Your task to perform on an android device: Go to location settings Image 0: 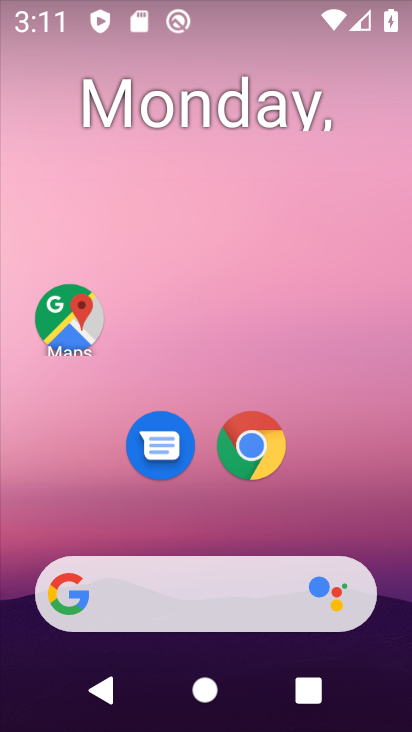
Step 0: drag from (202, 455) to (208, 54)
Your task to perform on an android device: Go to location settings Image 1: 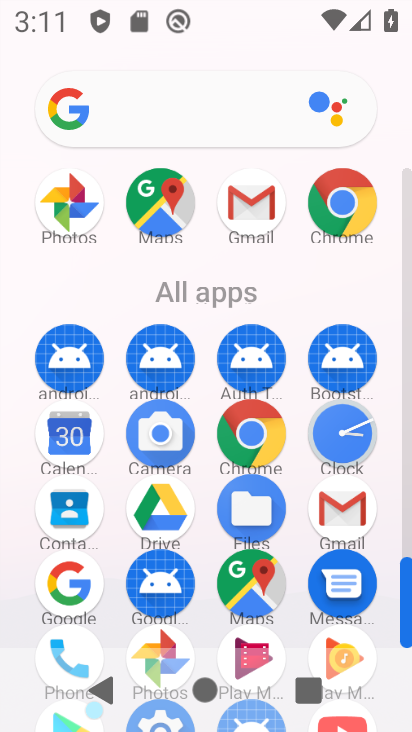
Step 1: drag from (196, 548) to (202, 225)
Your task to perform on an android device: Go to location settings Image 2: 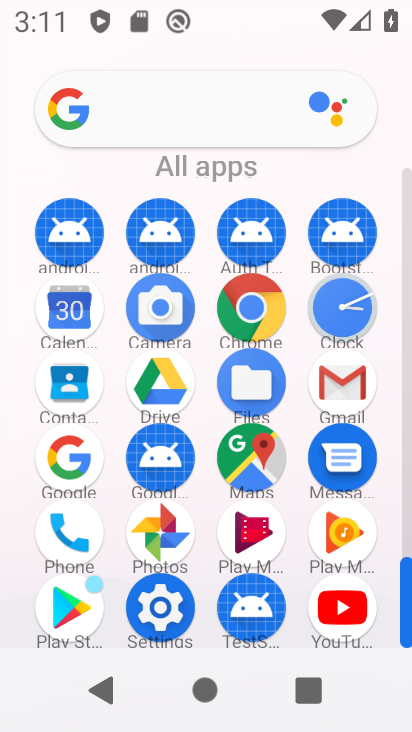
Step 2: click (167, 625)
Your task to perform on an android device: Go to location settings Image 3: 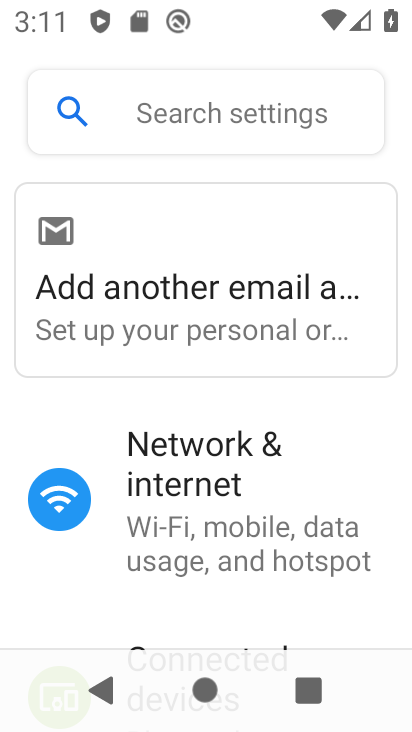
Step 3: drag from (203, 506) to (232, 329)
Your task to perform on an android device: Go to location settings Image 4: 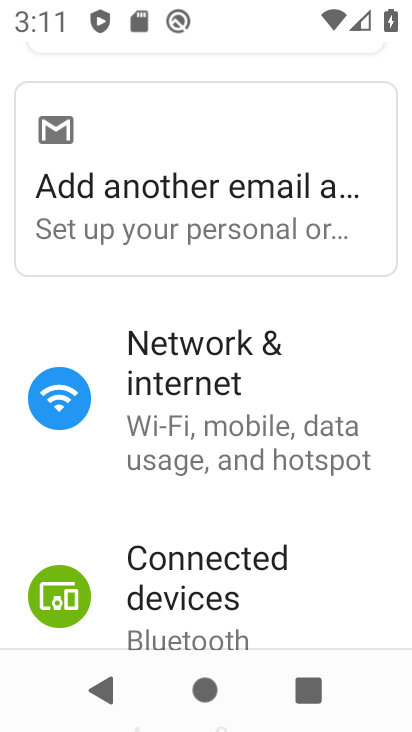
Step 4: drag from (191, 610) to (209, 231)
Your task to perform on an android device: Go to location settings Image 5: 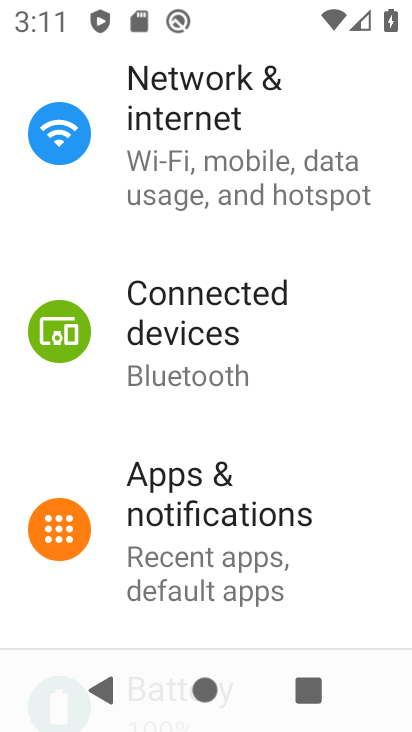
Step 5: drag from (171, 567) to (206, 254)
Your task to perform on an android device: Go to location settings Image 6: 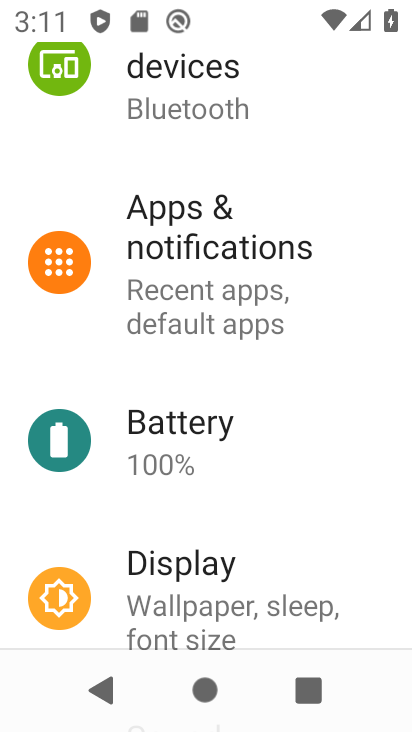
Step 6: drag from (179, 563) to (273, 86)
Your task to perform on an android device: Go to location settings Image 7: 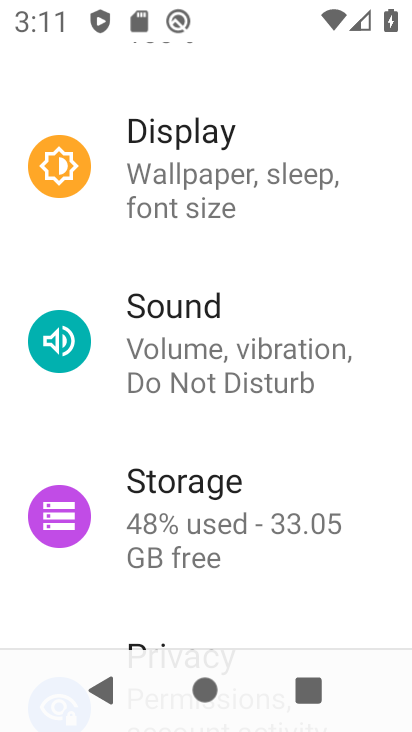
Step 7: drag from (172, 598) to (220, 315)
Your task to perform on an android device: Go to location settings Image 8: 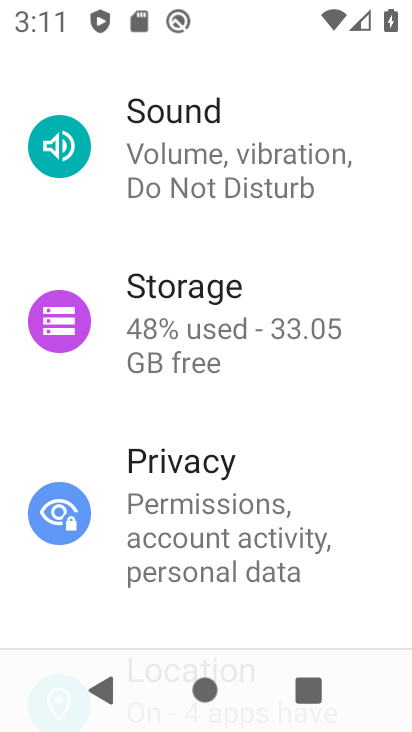
Step 8: drag from (198, 508) to (233, 208)
Your task to perform on an android device: Go to location settings Image 9: 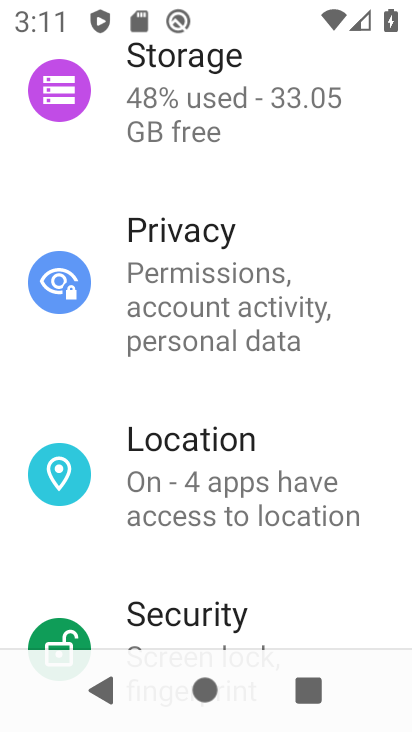
Step 9: click (187, 507)
Your task to perform on an android device: Go to location settings Image 10: 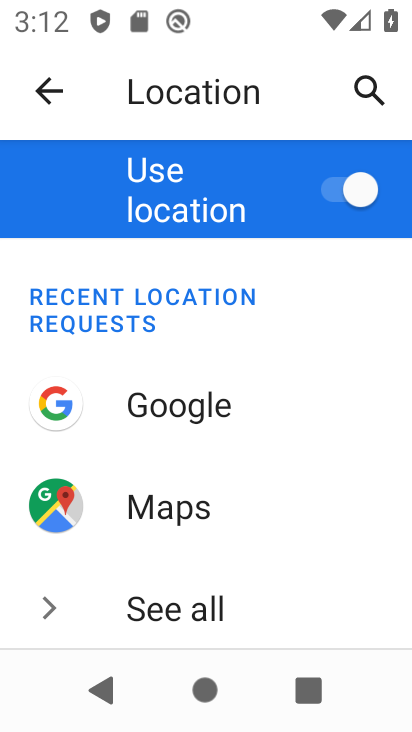
Step 10: task complete